Your task to perform on an android device: Open battery settings Image 0: 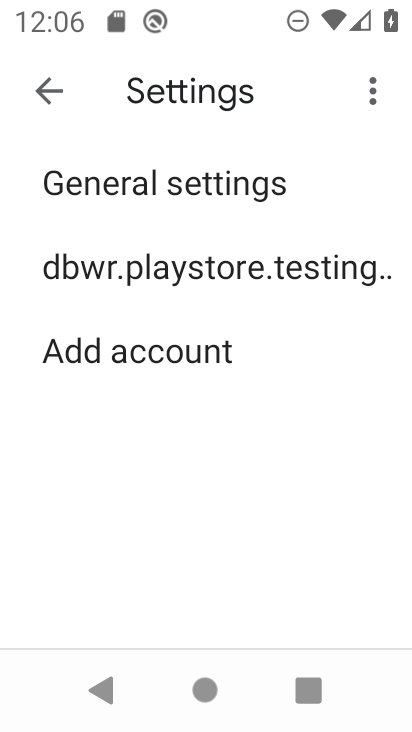
Step 0: press home button
Your task to perform on an android device: Open battery settings Image 1: 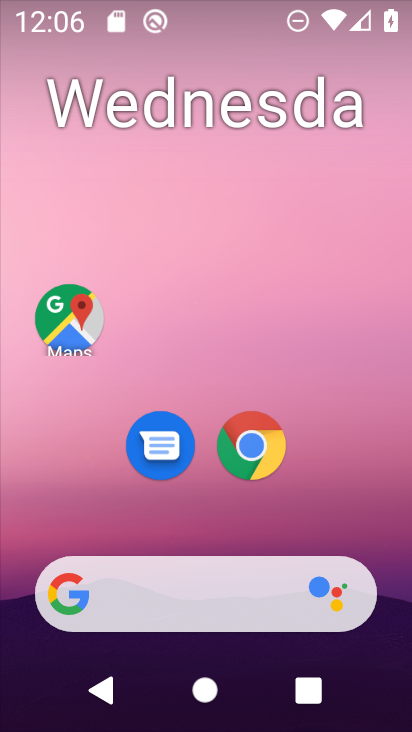
Step 1: drag from (95, 545) to (210, 145)
Your task to perform on an android device: Open battery settings Image 2: 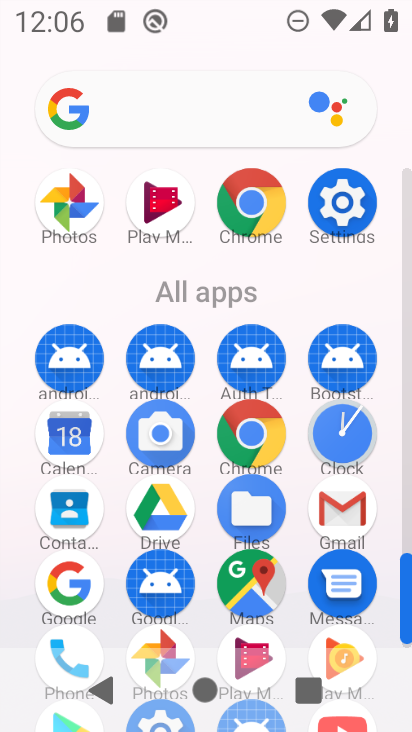
Step 2: drag from (214, 636) to (317, 365)
Your task to perform on an android device: Open battery settings Image 3: 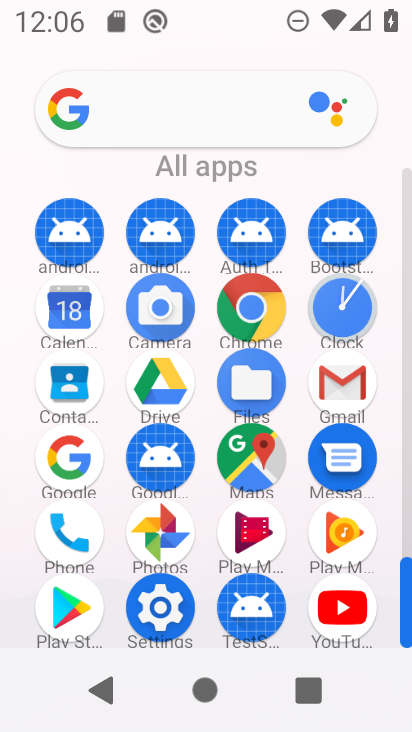
Step 3: click (140, 601)
Your task to perform on an android device: Open battery settings Image 4: 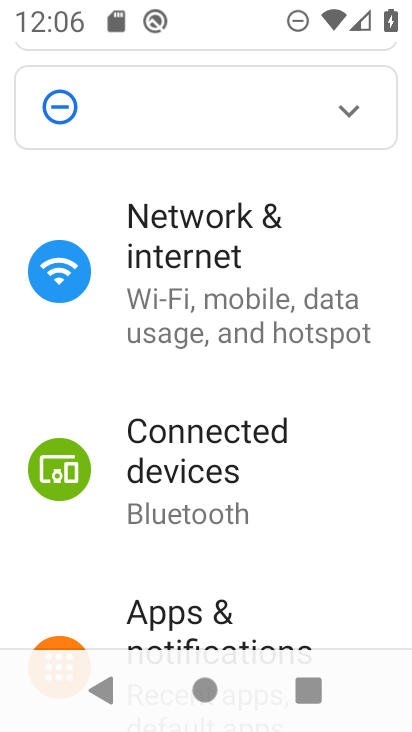
Step 4: drag from (263, 566) to (367, 234)
Your task to perform on an android device: Open battery settings Image 5: 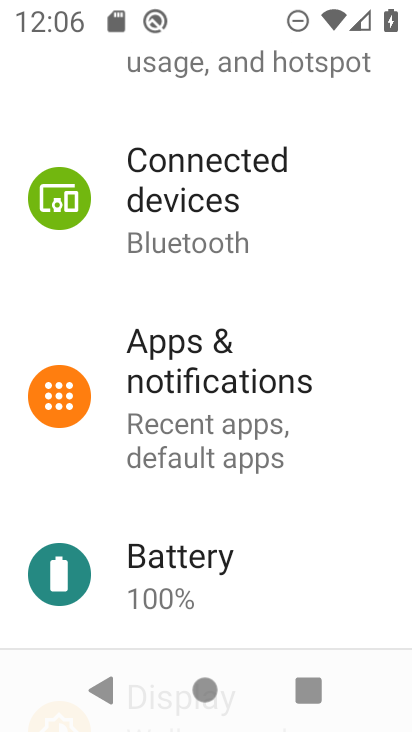
Step 5: click (251, 585)
Your task to perform on an android device: Open battery settings Image 6: 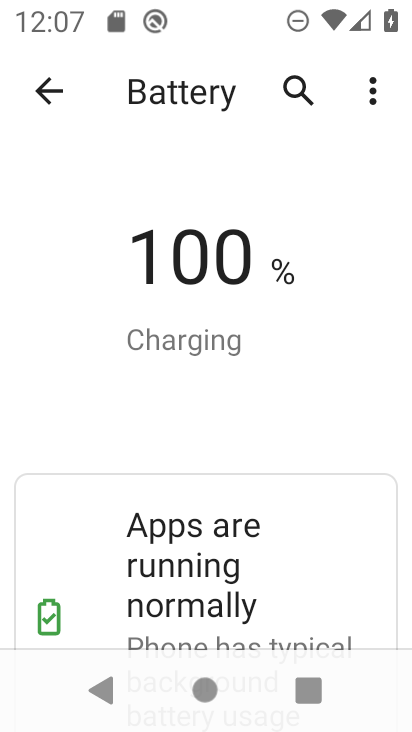
Step 6: task complete